Your task to perform on an android device: Go to Reddit.com Image 0: 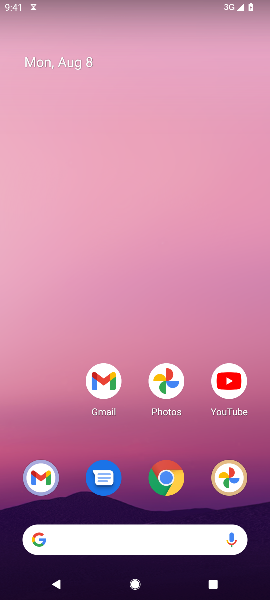
Step 0: press home button
Your task to perform on an android device: Go to Reddit.com Image 1: 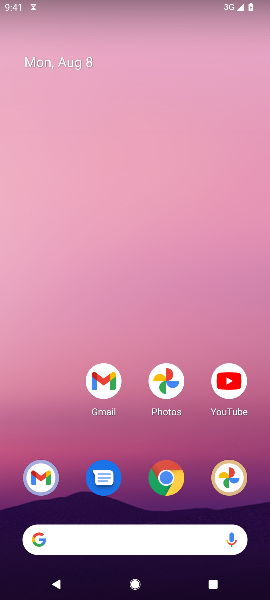
Step 1: click (164, 474)
Your task to perform on an android device: Go to Reddit.com Image 2: 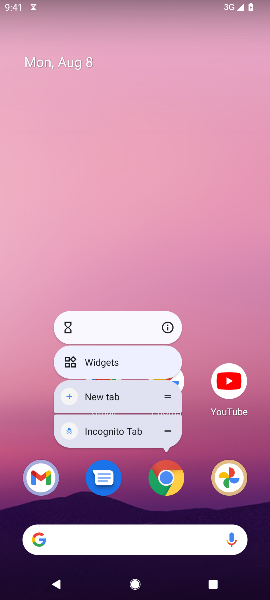
Step 2: click (164, 474)
Your task to perform on an android device: Go to Reddit.com Image 3: 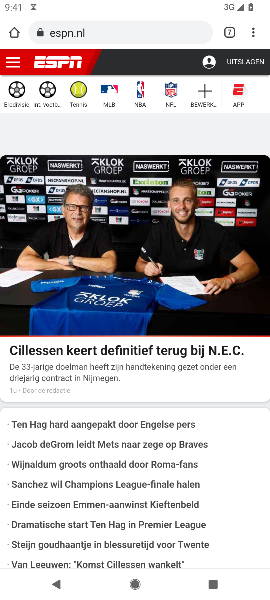
Step 3: drag from (253, 35) to (188, 100)
Your task to perform on an android device: Go to Reddit.com Image 4: 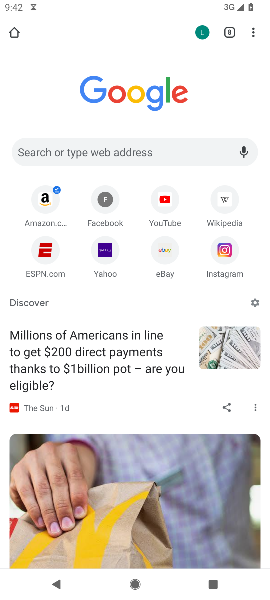
Step 4: click (81, 150)
Your task to perform on an android device: Go to Reddit.com Image 5: 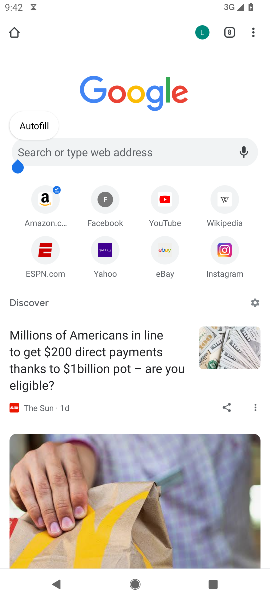
Step 5: click (74, 145)
Your task to perform on an android device: Go to Reddit.com Image 6: 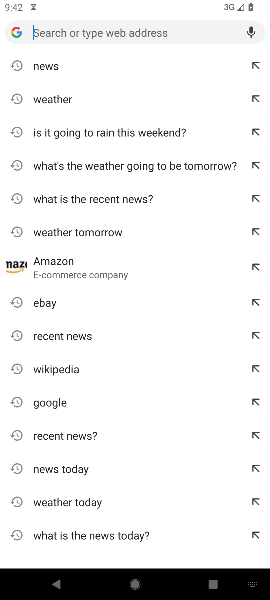
Step 6: type "Reddit.com"
Your task to perform on an android device: Go to Reddit.com Image 7: 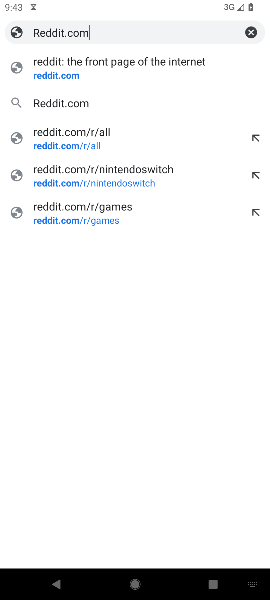
Step 7: click (172, 61)
Your task to perform on an android device: Go to Reddit.com Image 8: 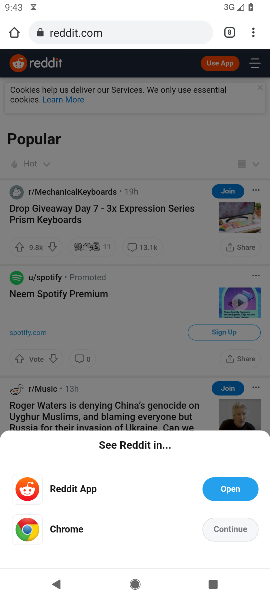
Step 8: task complete